Your task to perform on an android device: Open privacy settings Image 0: 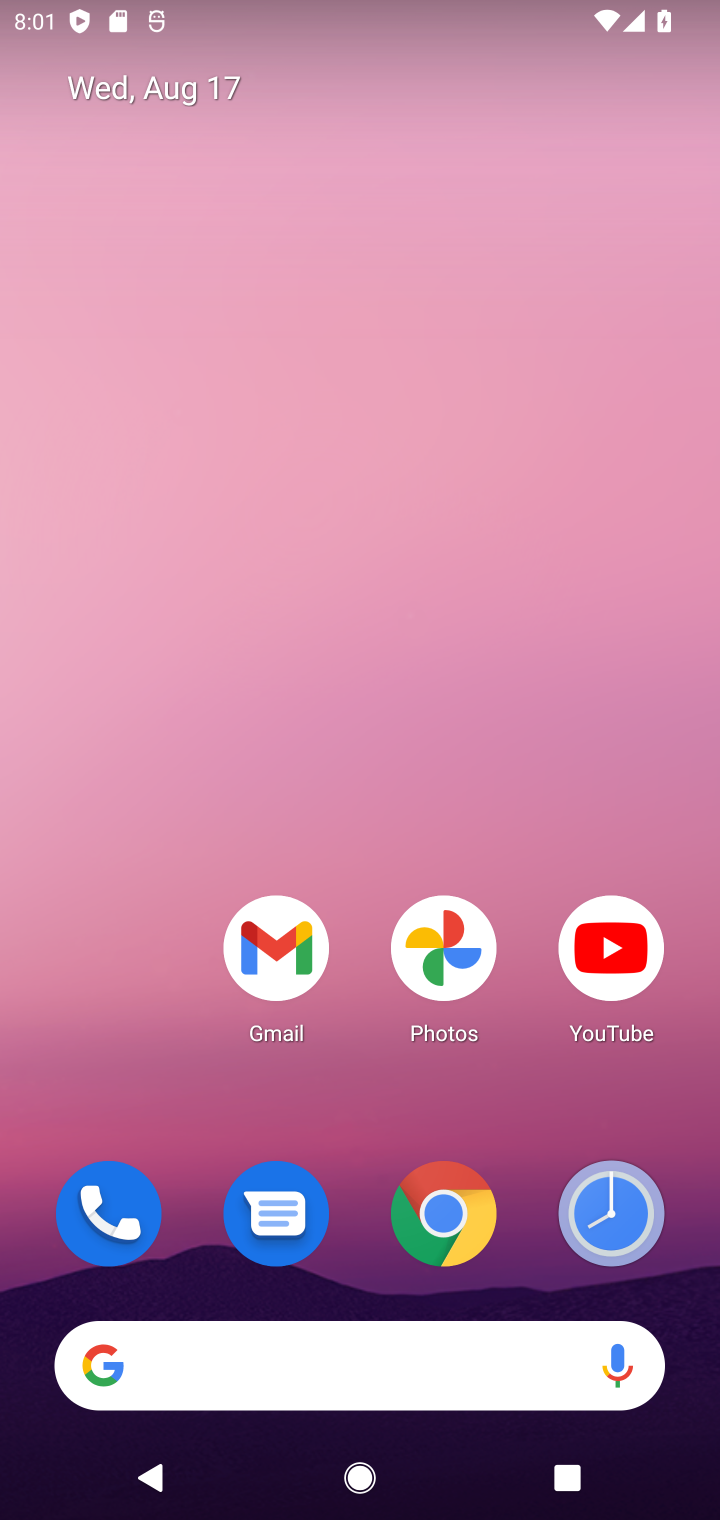
Step 0: drag from (342, 1107) to (334, 248)
Your task to perform on an android device: Open privacy settings Image 1: 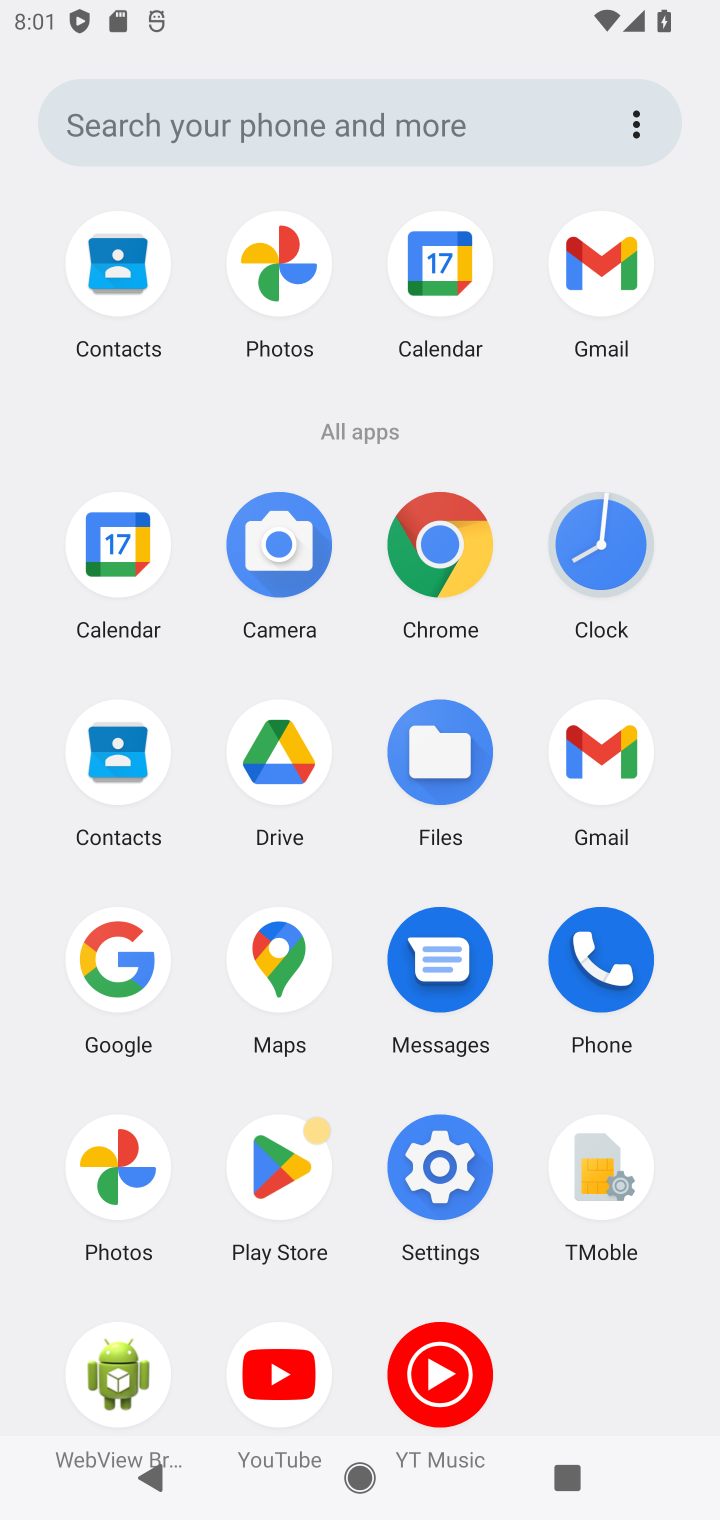
Step 1: click (418, 1163)
Your task to perform on an android device: Open privacy settings Image 2: 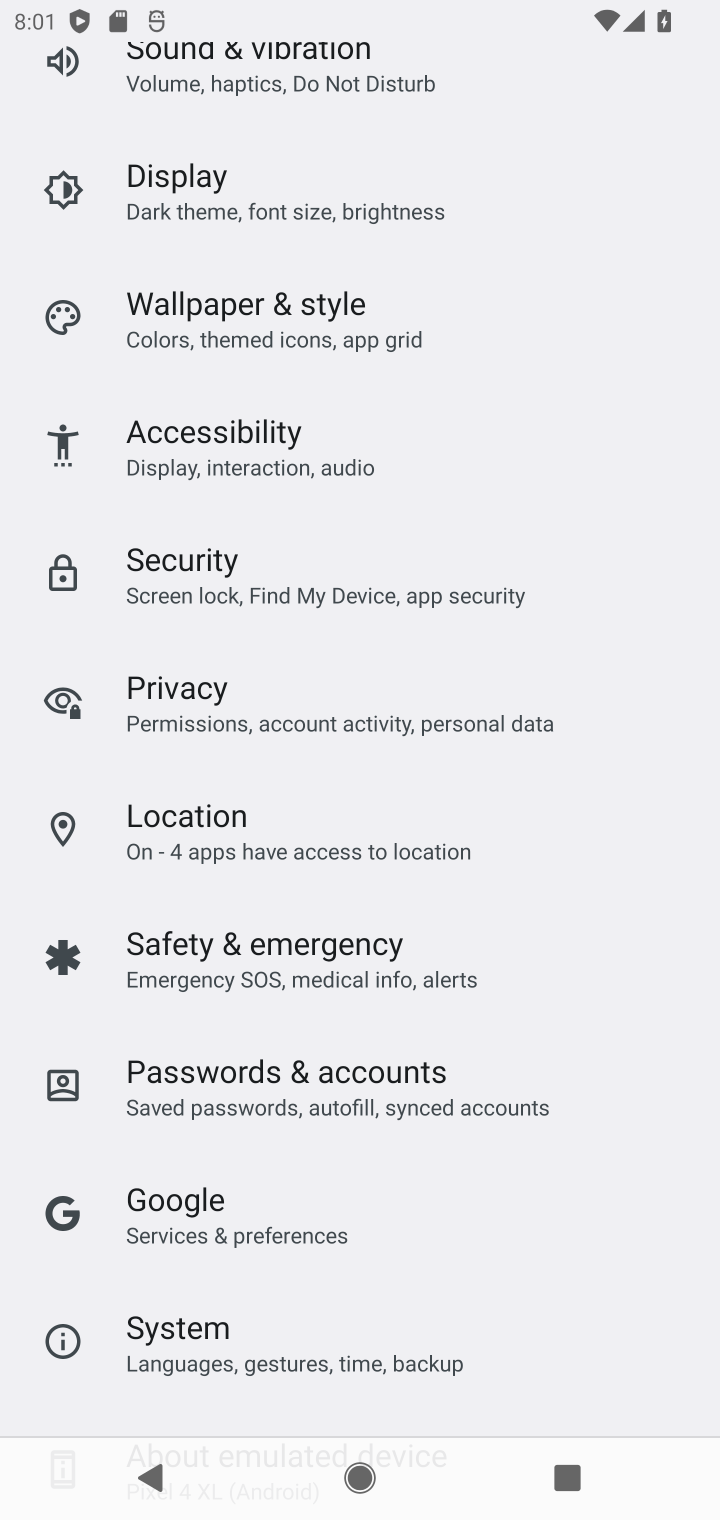
Step 2: click (280, 705)
Your task to perform on an android device: Open privacy settings Image 3: 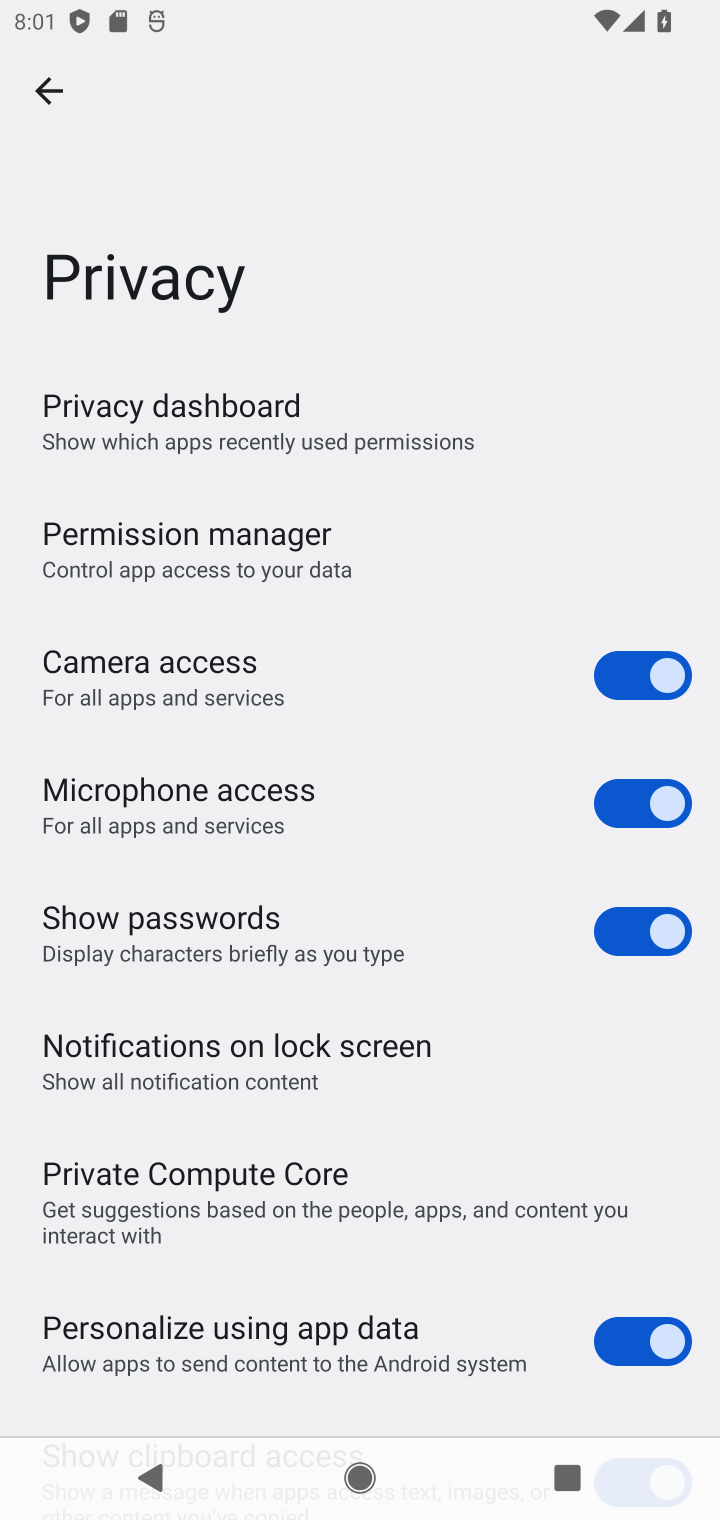
Step 3: task complete